Your task to perform on an android device: Go to Google Image 0: 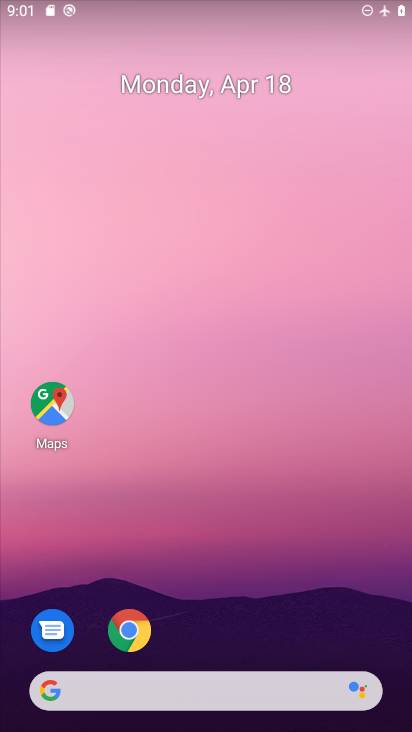
Step 0: click (184, 693)
Your task to perform on an android device: Go to Google Image 1: 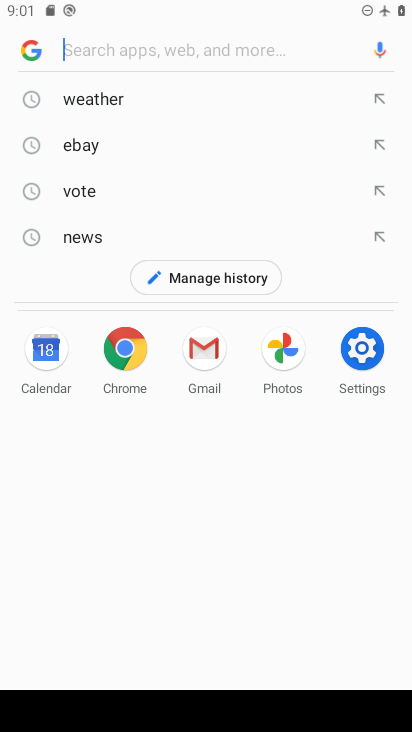
Step 1: click (29, 52)
Your task to perform on an android device: Go to Google Image 2: 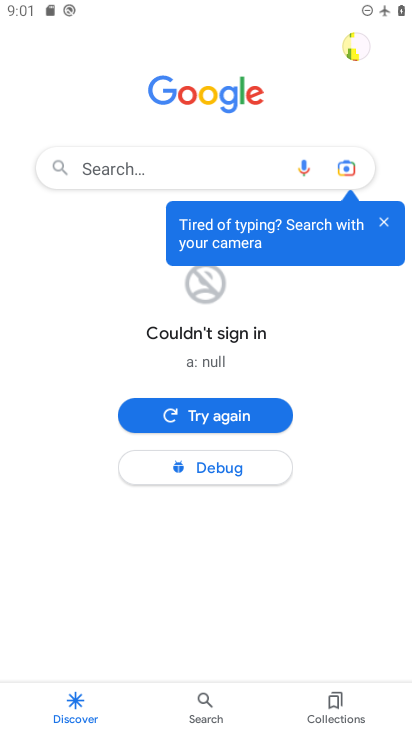
Step 2: task complete